Your task to perform on an android device: Open settings Image 0: 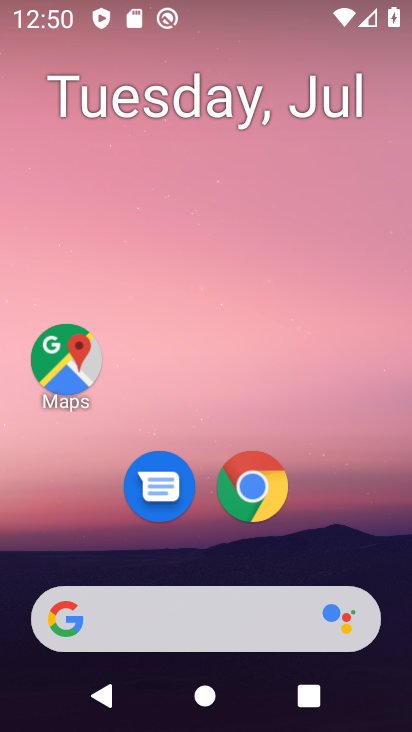
Step 0: drag from (342, 546) to (388, 108)
Your task to perform on an android device: Open settings Image 1: 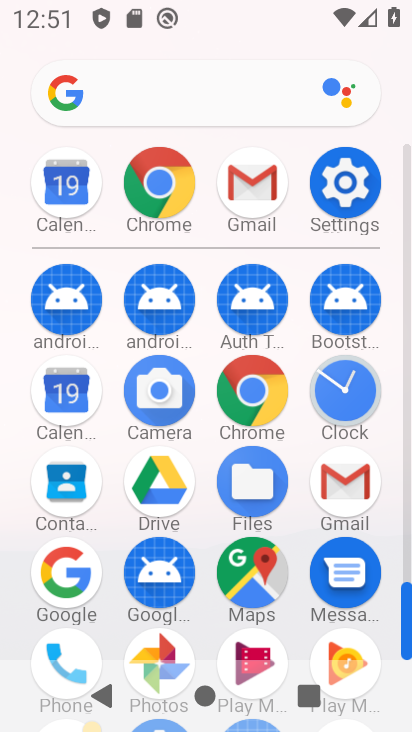
Step 1: click (355, 188)
Your task to perform on an android device: Open settings Image 2: 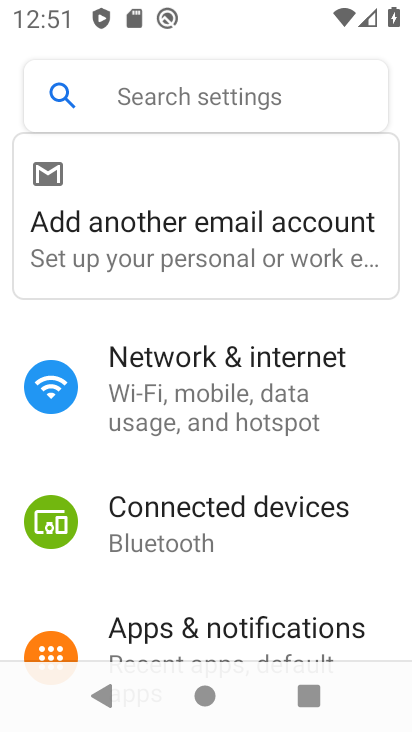
Step 2: task complete